Your task to perform on an android device: Show me recent news Image 0: 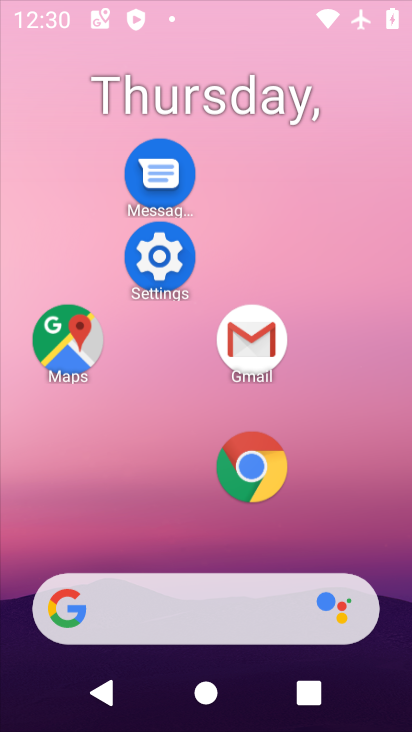
Step 0: click (161, 162)
Your task to perform on an android device: Show me recent news Image 1: 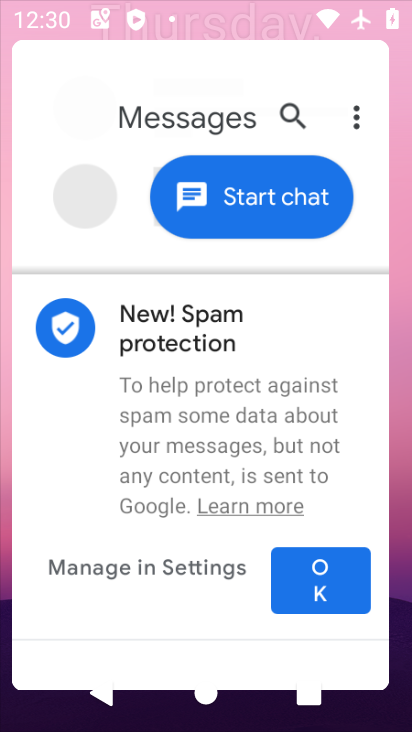
Step 1: drag from (193, 504) to (253, 72)
Your task to perform on an android device: Show me recent news Image 2: 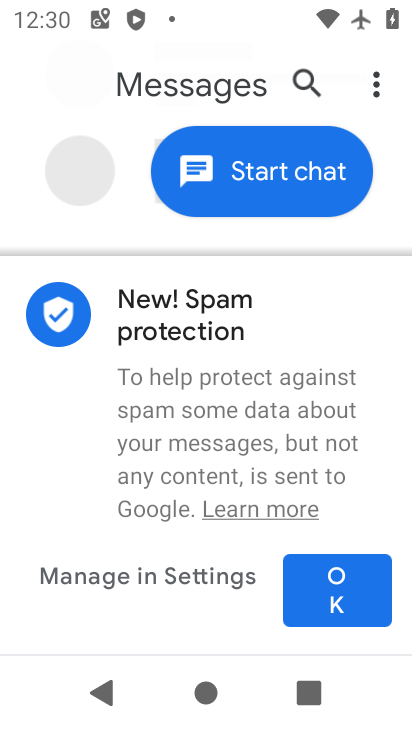
Step 2: press home button
Your task to perform on an android device: Show me recent news Image 3: 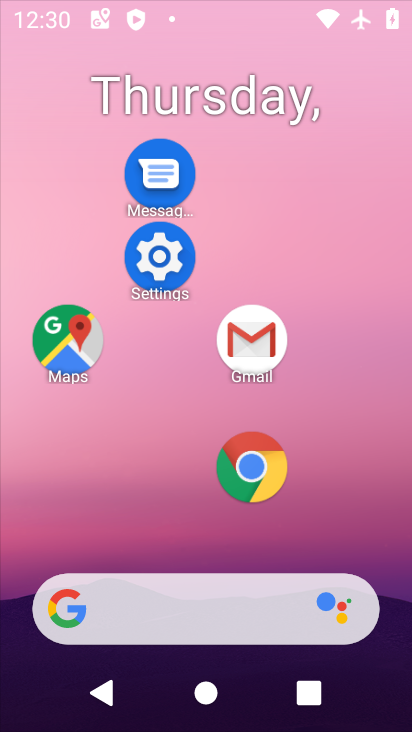
Step 3: click (201, 173)
Your task to perform on an android device: Show me recent news Image 4: 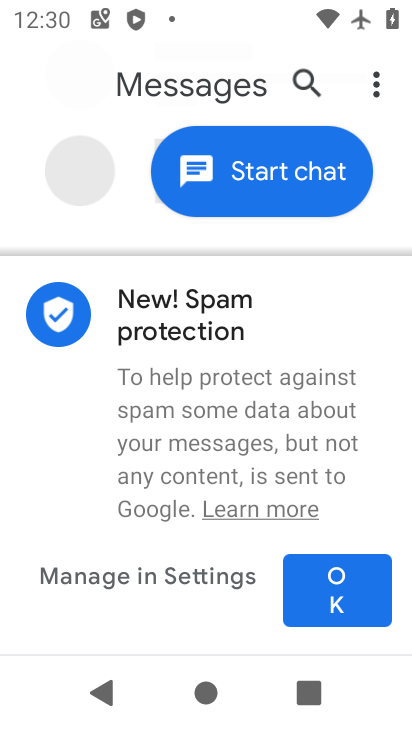
Step 4: press home button
Your task to perform on an android device: Show me recent news Image 5: 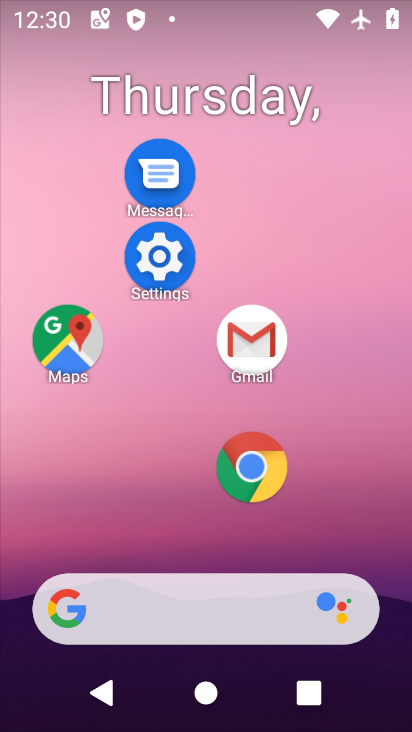
Step 5: drag from (206, 539) to (226, 11)
Your task to perform on an android device: Show me recent news Image 6: 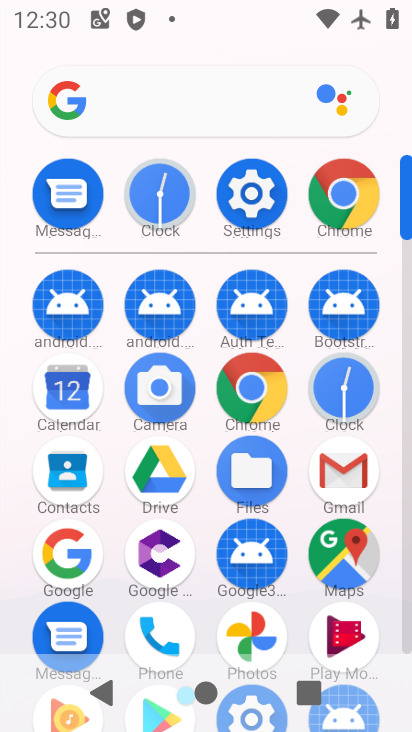
Step 6: click (196, 100)
Your task to perform on an android device: Show me recent news Image 7: 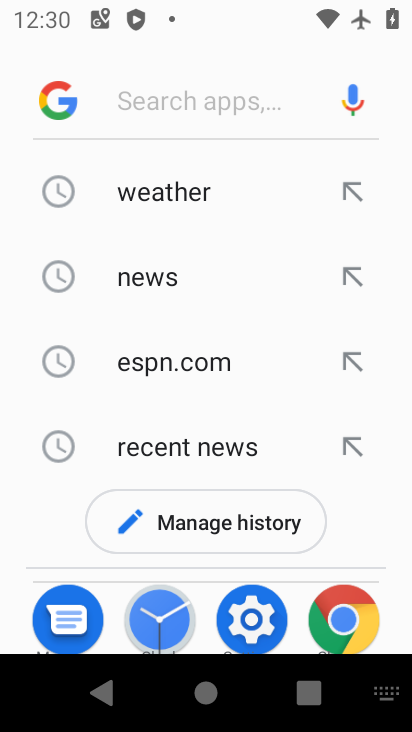
Step 7: click (185, 442)
Your task to perform on an android device: Show me recent news Image 8: 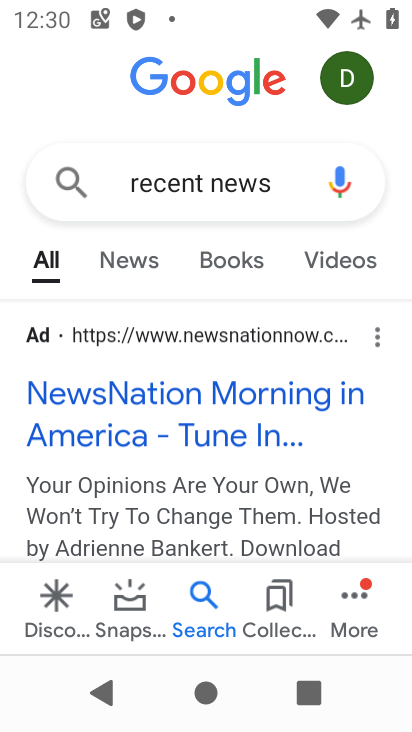
Step 8: click (181, 420)
Your task to perform on an android device: Show me recent news Image 9: 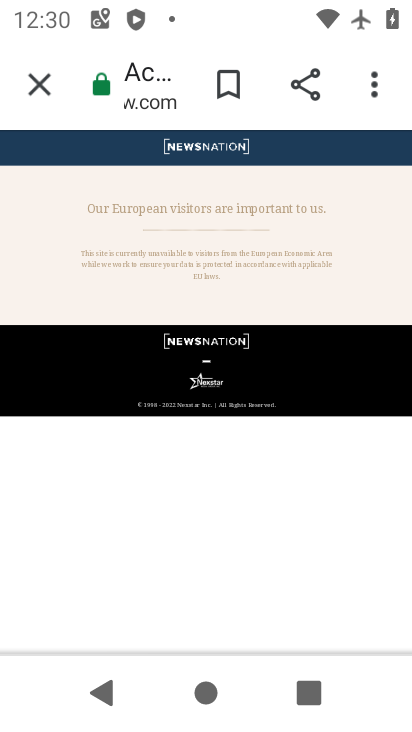
Step 9: click (38, 88)
Your task to perform on an android device: Show me recent news Image 10: 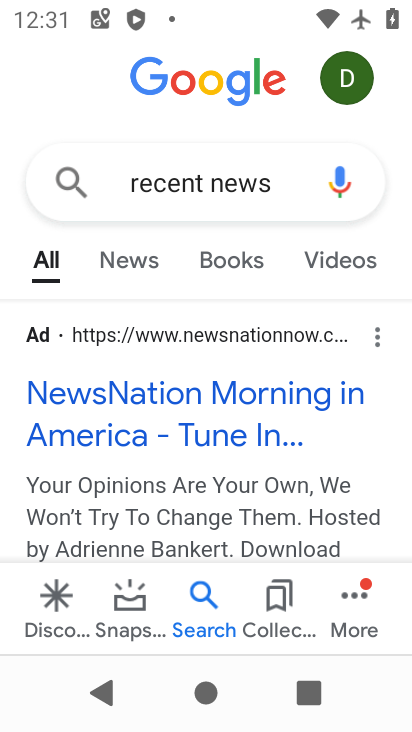
Step 10: task complete